Your task to perform on an android device: turn off notifications in google photos Image 0: 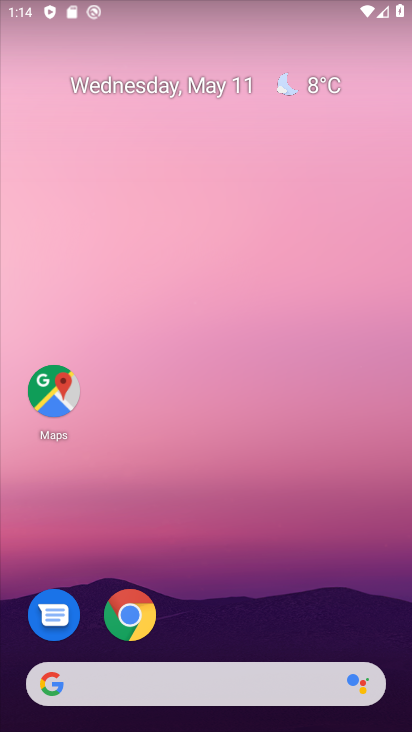
Step 0: drag from (339, 489) to (313, 112)
Your task to perform on an android device: turn off notifications in google photos Image 1: 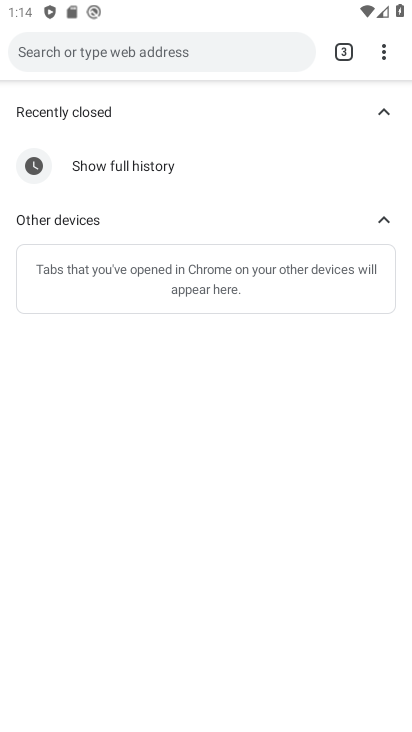
Step 1: press home button
Your task to perform on an android device: turn off notifications in google photos Image 2: 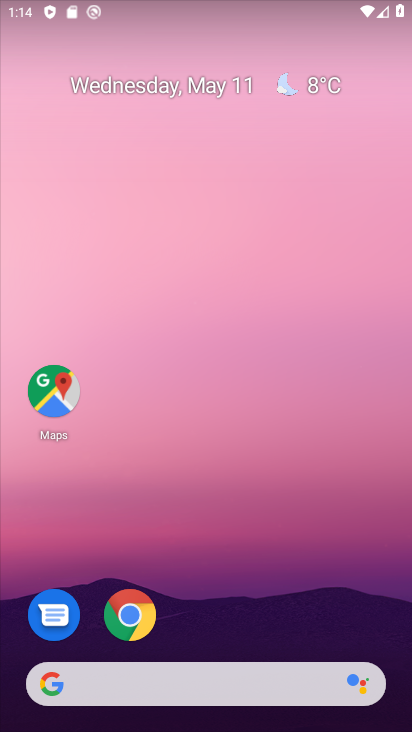
Step 2: drag from (317, 578) to (290, 109)
Your task to perform on an android device: turn off notifications in google photos Image 3: 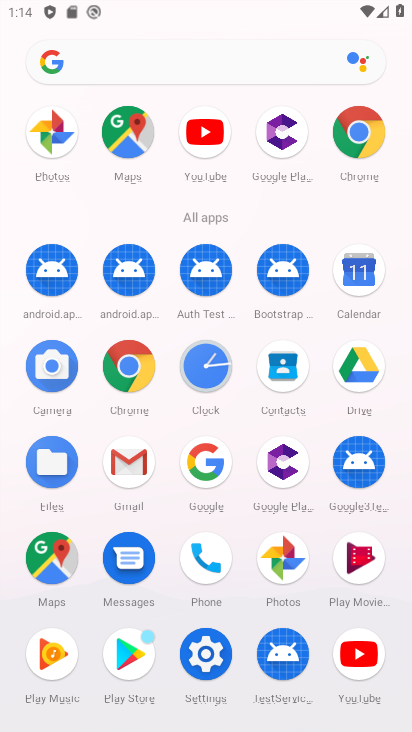
Step 3: click (52, 132)
Your task to perform on an android device: turn off notifications in google photos Image 4: 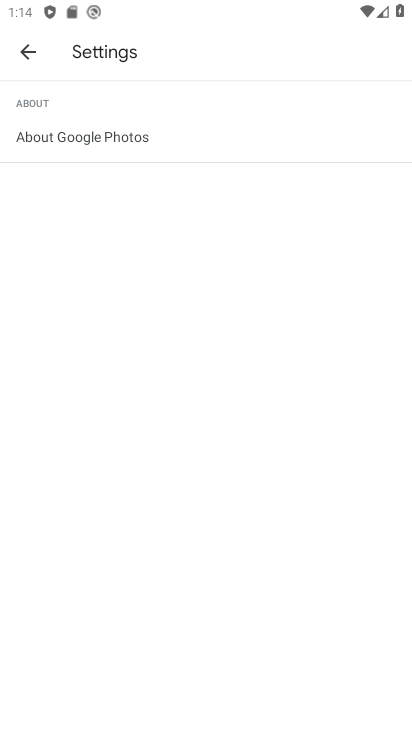
Step 4: click (15, 54)
Your task to perform on an android device: turn off notifications in google photos Image 5: 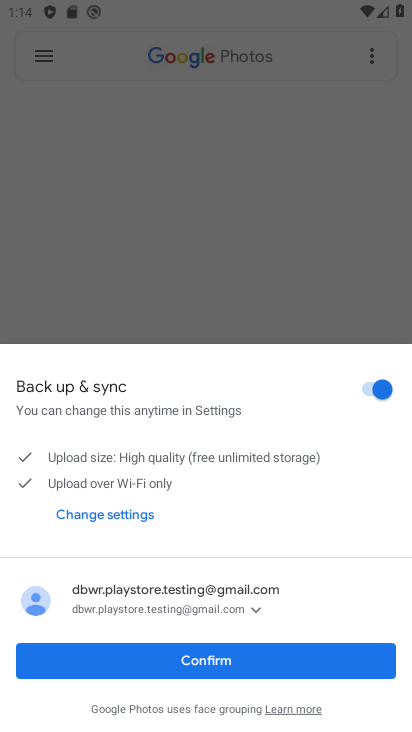
Step 5: click (249, 663)
Your task to perform on an android device: turn off notifications in google photos Image 6: 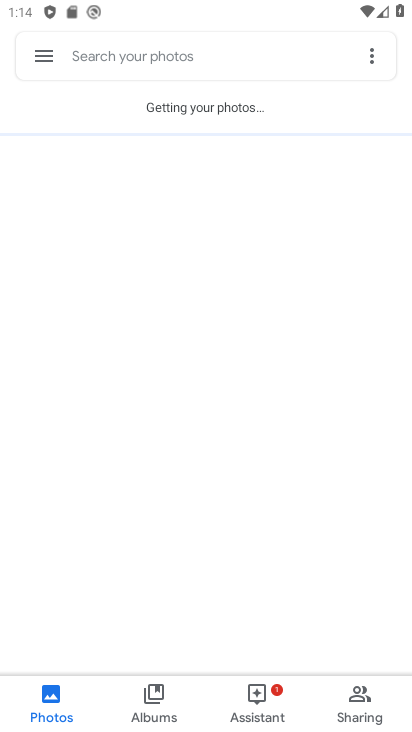
Step 6: click (50, 60)
Your task to perform on an android device: turn off notifications in google photos Image 7: 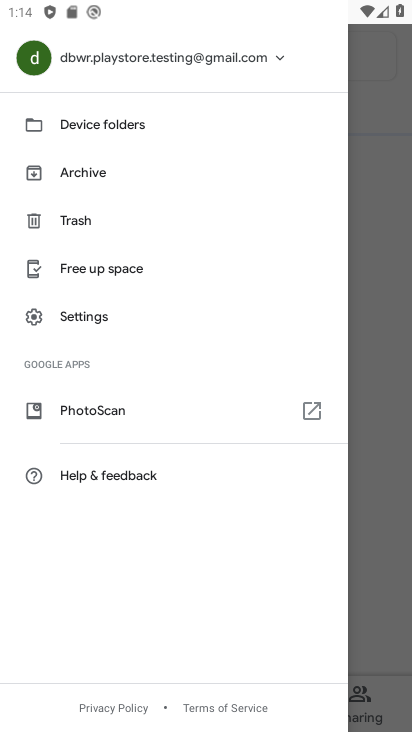
Step 7: click (103, 336)
Your task to perform on an android device: turn off notifications in google photos Image 8: 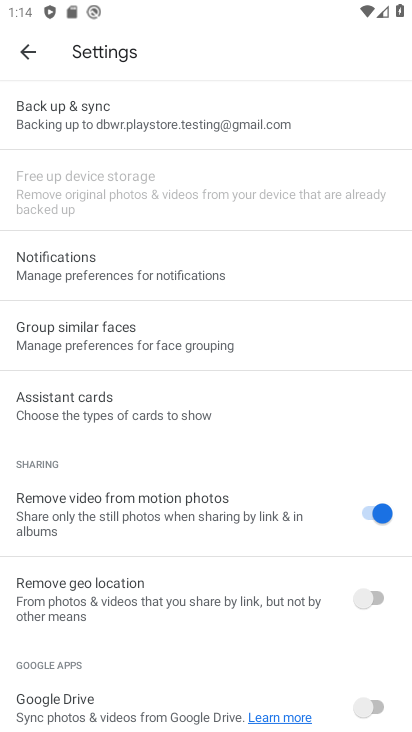
Step 8: click (97, 269)
Your task to perform on an android device: turn off notifications in google photos Image 9: 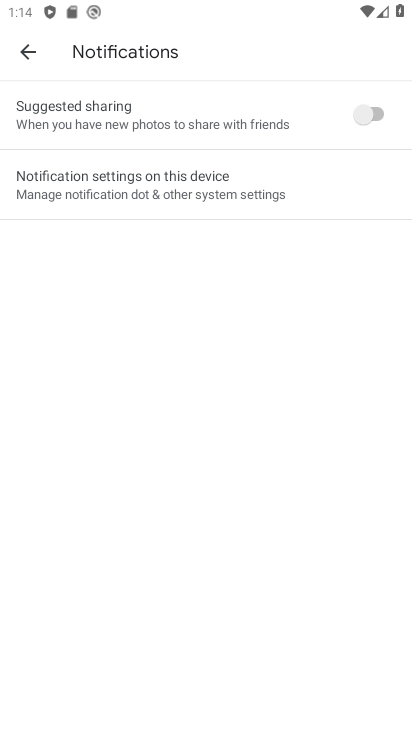
Step 9: click (143, 201)
Your task to perform on an android device: turn off notifications in google photos Image 10: 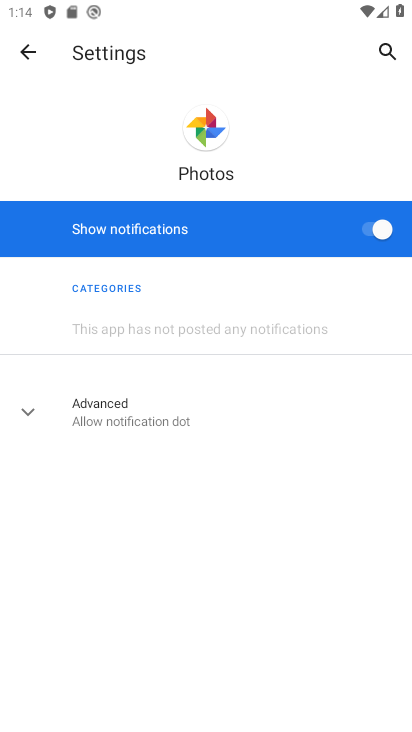
Step 10: click (369, 230)
Your task to perform on an android device: turn off notifications in google photos Image 11: 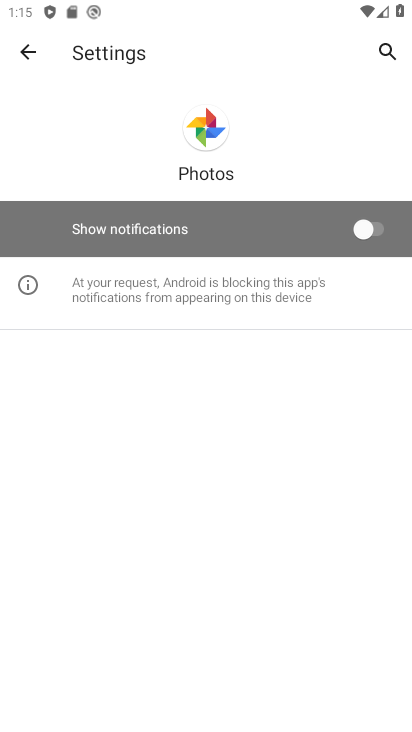
Step 11: task complete